Your task to perform on an android device: Go to Wikipedia Image 0: 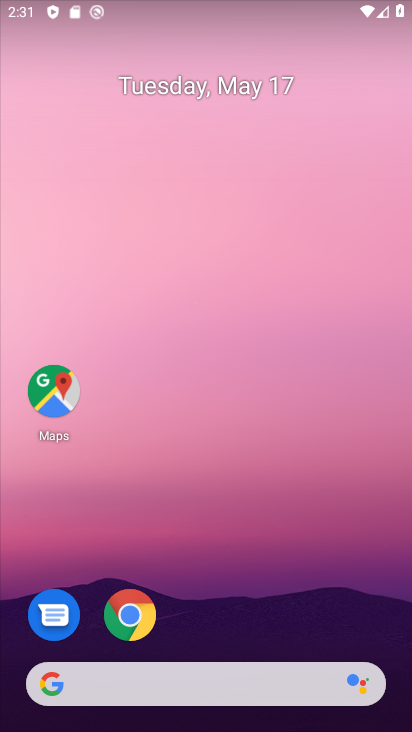
Step 0: click (131, 619)
Your task to perform on an android device: Go to Wikipedia Image 1: 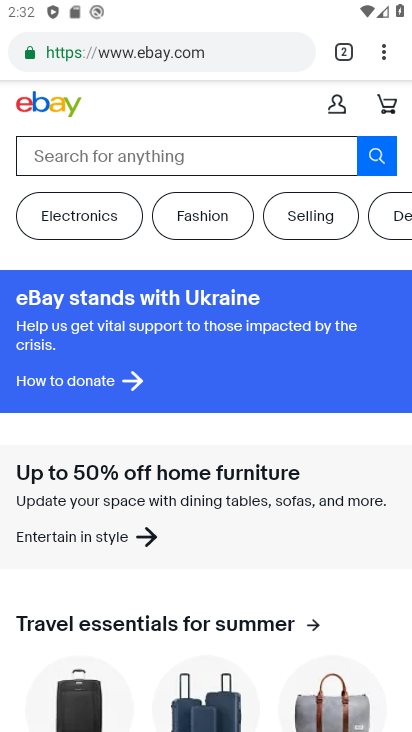
Step 1: click (384, 57)
Your task to perform on an android device: Go to Wikipedia Image 2: 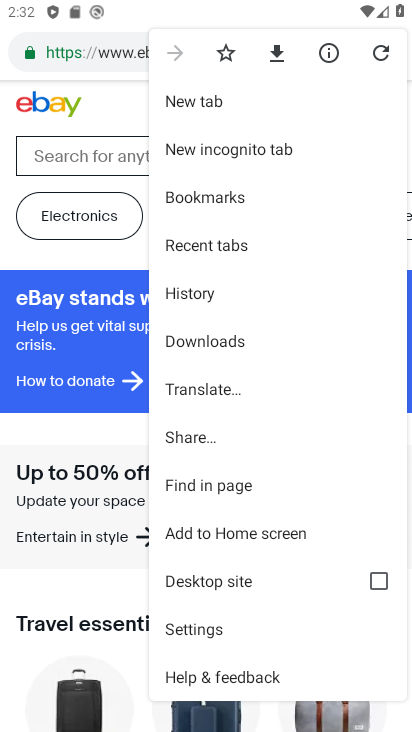
Step 2: click (209, 97)
Your task to perform on an android device: Go to Wikipedia Image 3: 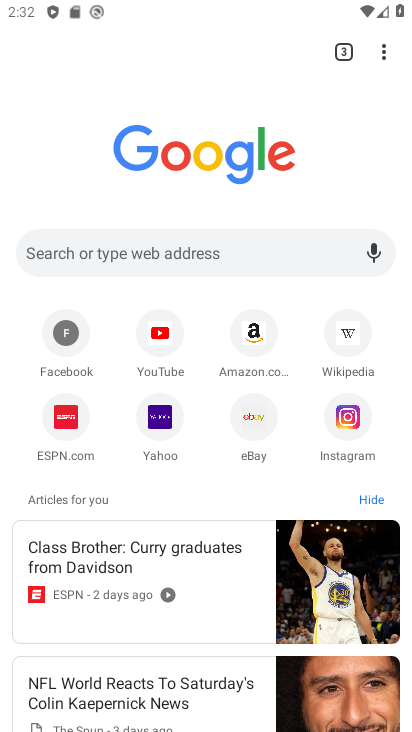
Step 3: click (348, 329)
Your task to perform on an android device: Go to Wikipedia Image 4: 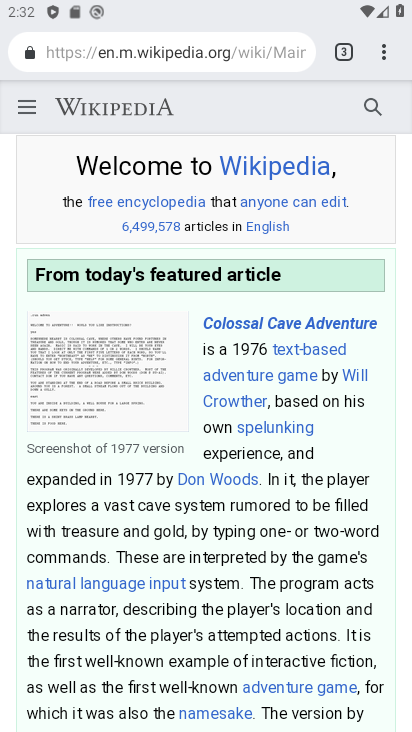
Step 4: task complete